Your task to perform on an android device: Go to Google Image 0: 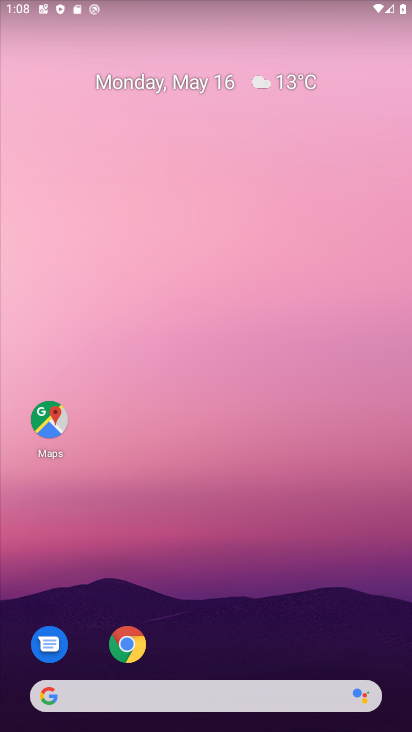
Step 0: drag from (226, 628) to (289, 172)
Your task to perform on an android device: Go to Google Image 1: 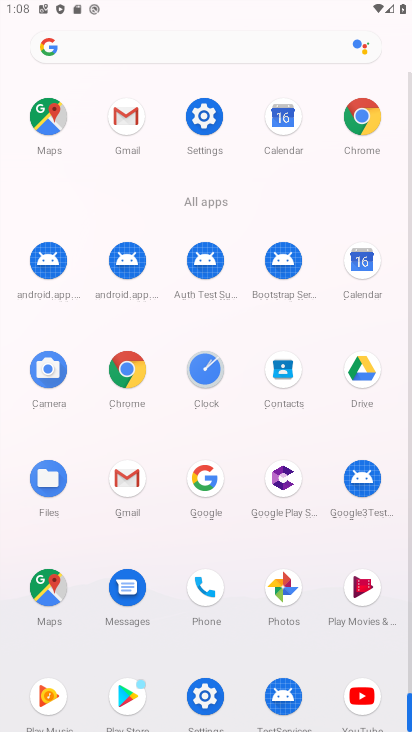
Step 1: click (201, 500)
Your task to perform on an android device: Go to Google Image 2: 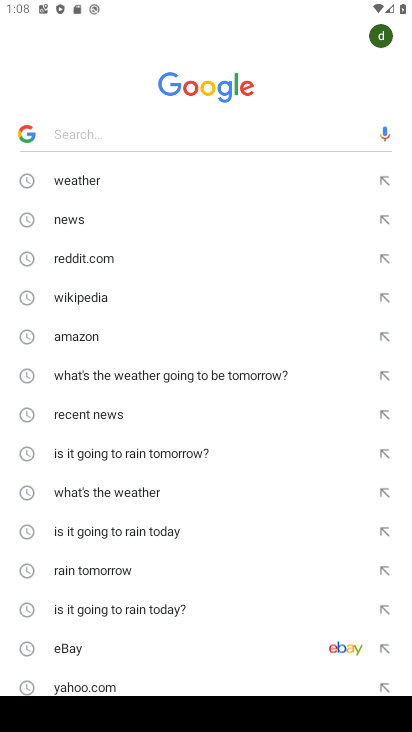
Step 2: task complete